Your task to perform on an android device: Go to location settings Image 0: 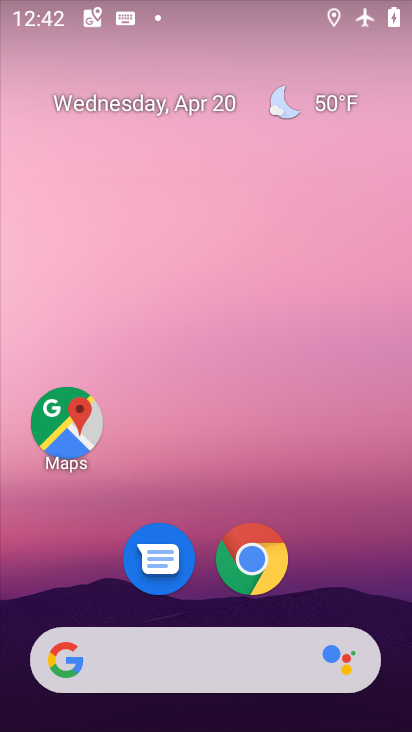
Step 0: drag from (329, 580) to (299, 89)
Your task to perform on an android device: Go to location settings Image 1: 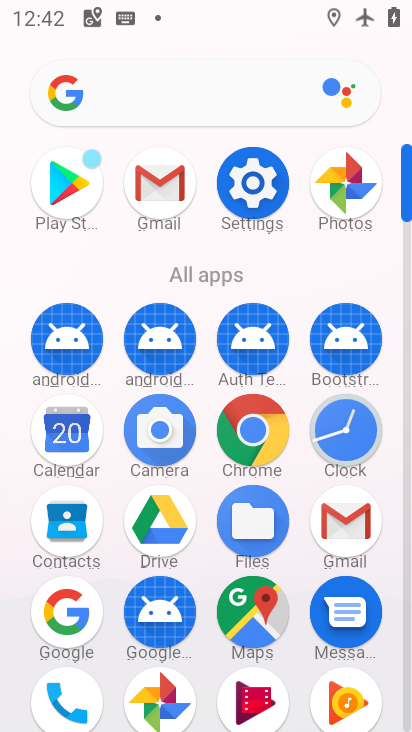
Step 1: click (242, 177)
Your task to perform on an android device: Go to location settings Image 2: 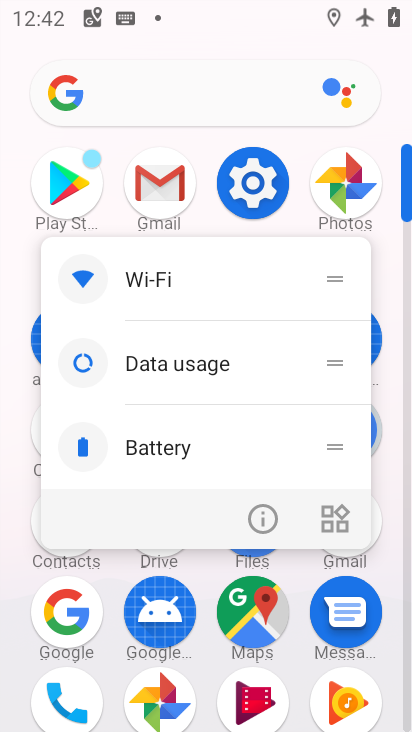
Step 2: click (248, 176)
Your task to perform on an android device: Go to location settings Image 3: 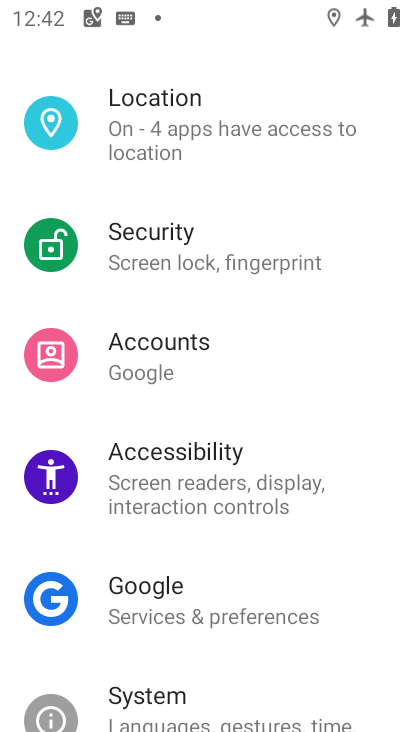
Step 3: click (169, 153)
Your task to perform on an android device: Go to location settings Image 4: 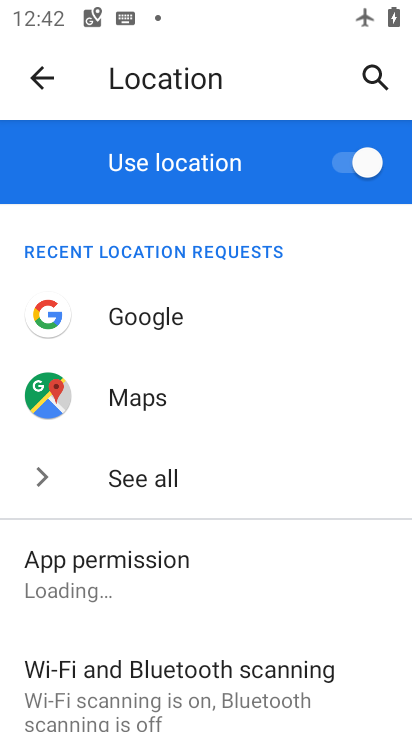
Step 4: drag from (210, 613) to (226, 283)
Your task to perform on an android device: Go to location settings Image 5: 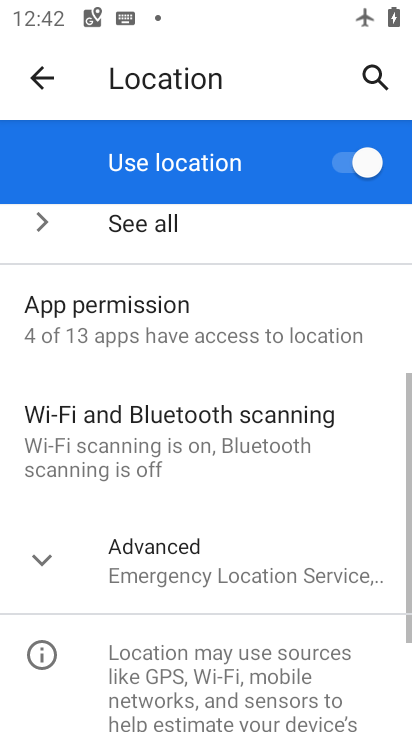
Step 5: click (166, 594)
Your task to perform on an android device: Go to location settings Image 6: 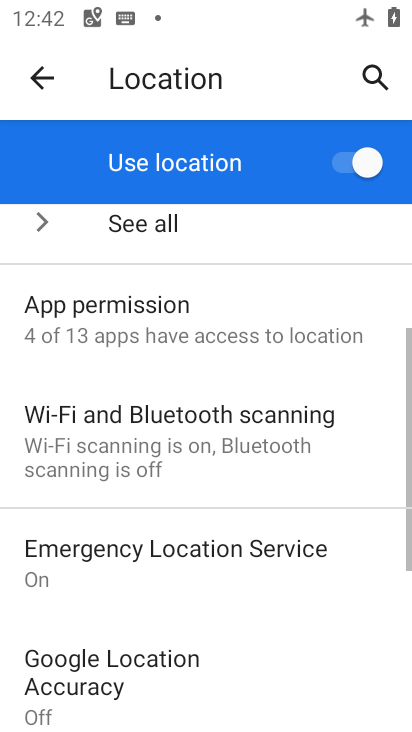
Step 6: task complete